Your task to perform on an android device: Search for seafood restaurants on Google Maps Image 0: 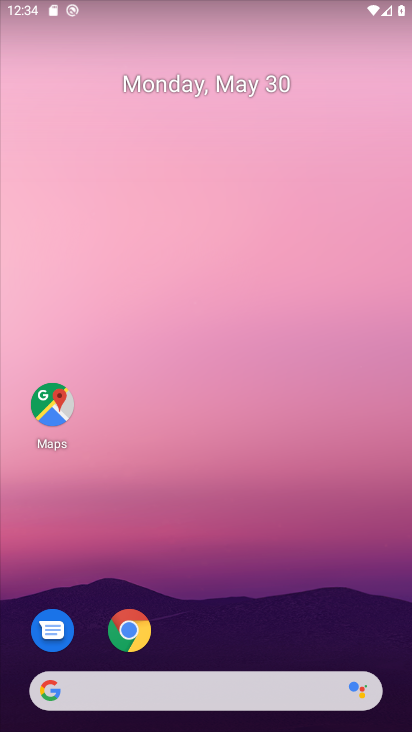
Step 0: click (49, 413)
Your task to perform on an android device: Search for seafood restaurants on Google Maps Image 1: 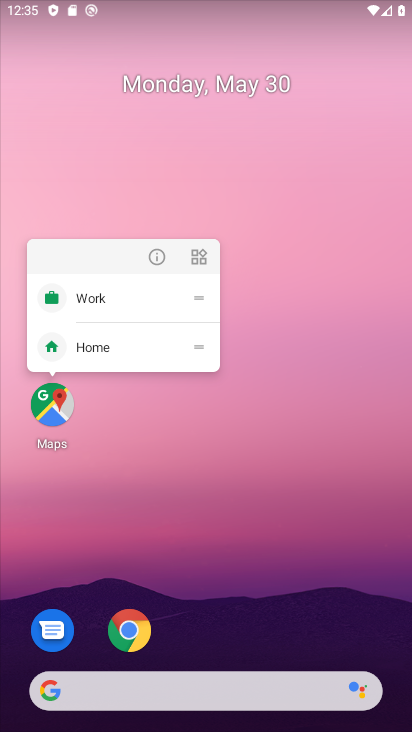
Step 1: click (57, 419)
Your task to perform on an android device: Search for seafood restaurants on Google Maps Image 2: 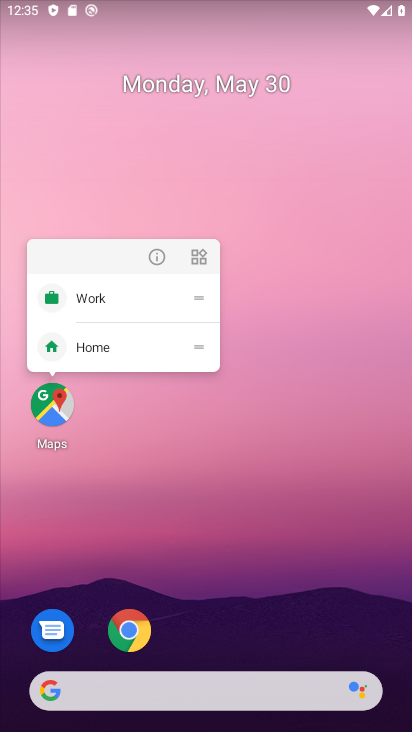
Step 2: click (60, 416)
Your task to perform on an android device: Search for seafood restaurants on Google Maps Image 3: 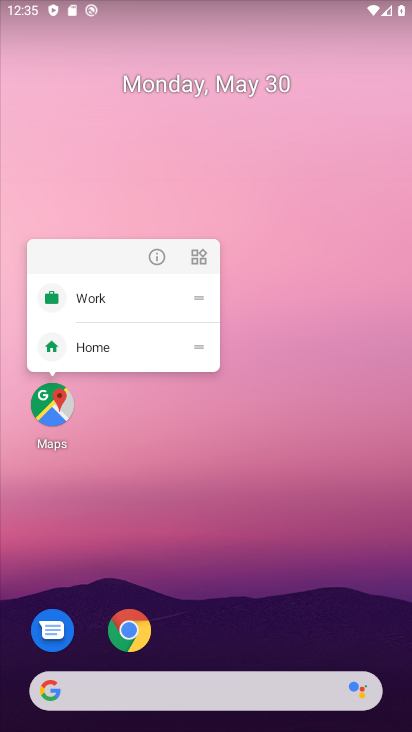
Step 3: click (65, 413)
Your task to perform on an android device: Search for seafood restaurants on Google Maps Image 4: 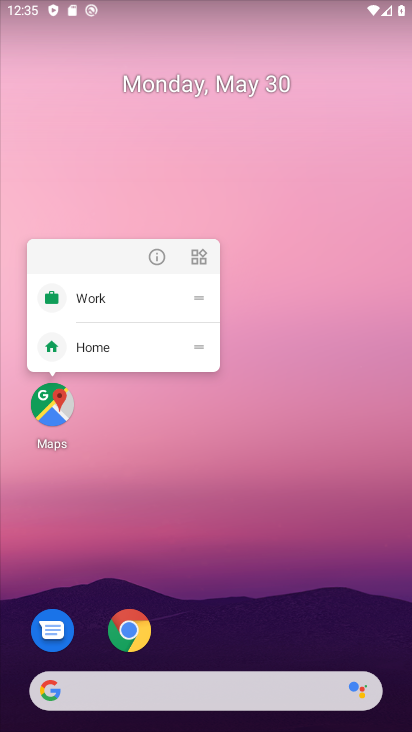
Step 4: click (65, 413)
Your task to perform on an android device: Search for seafood restaurants on Google Maps Image 5: 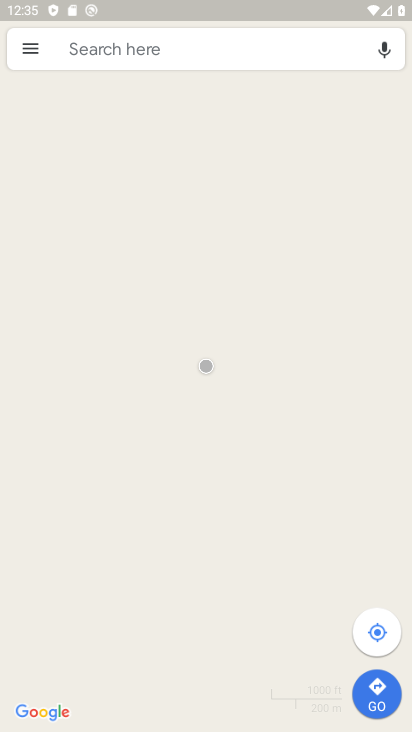
Step 5: click (165, 51)
Your task to perform on an android device: Search for seafood restaurants on Google Maps Image 6: 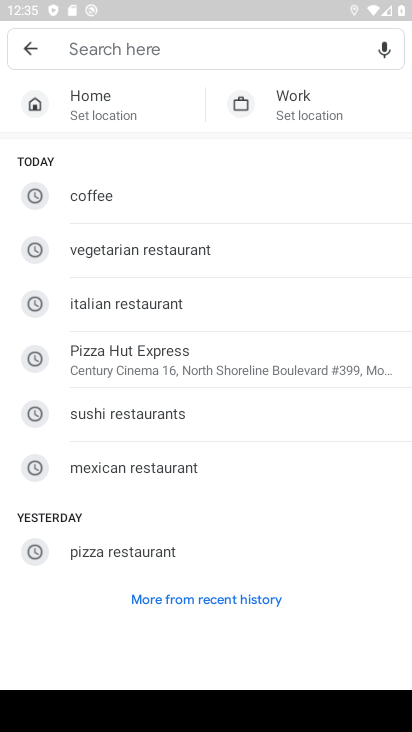
Step 6: type "seafood restaurants"
Your task to perform on an android device: Search for seafood restaurants on Google Maps Image 7: 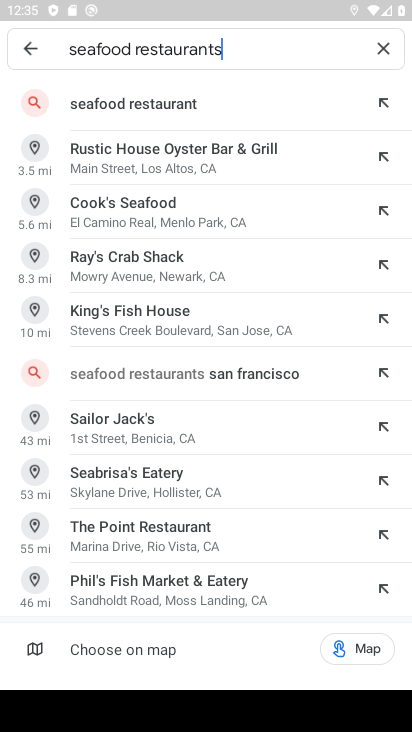
Step 7: click (200, 111)
Your task to perform on an android device: Search for seafood restaurants on Google Maps Image 8: 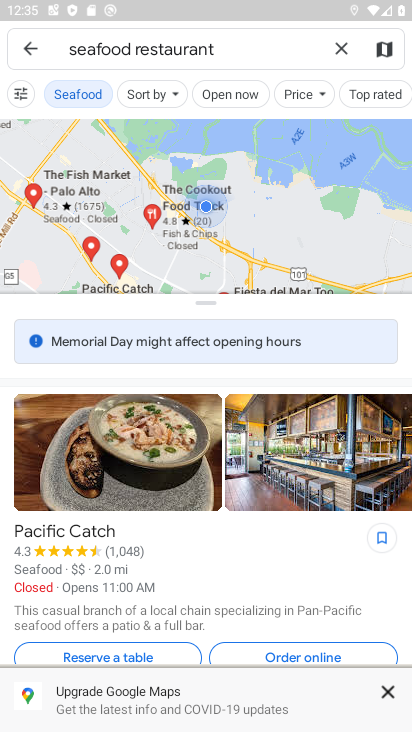
Step 8: click (390, 693)
Your task to perform on an android device: Search for seafood restaurants on Google Maps Image 9: 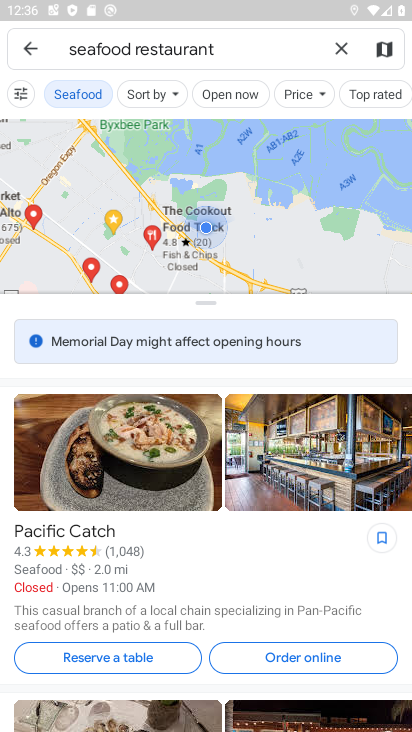
Step 9: task complete